Your task to perform on an android device: turn on location history Image 0: 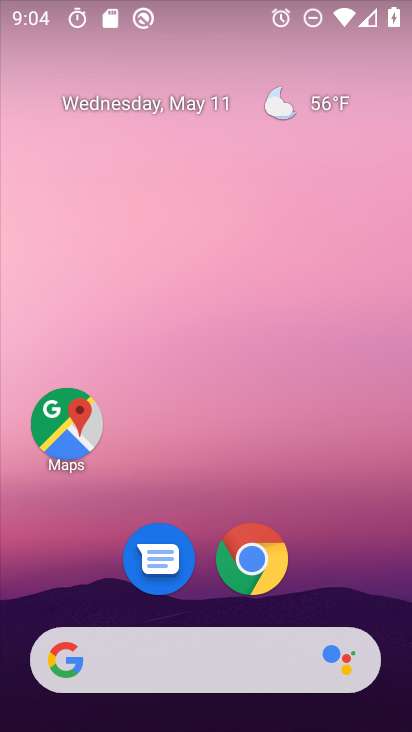
Step 0: drag from (223, 443) to (224, 147)
Your task to perform on an android device: turn on location history Image 1: 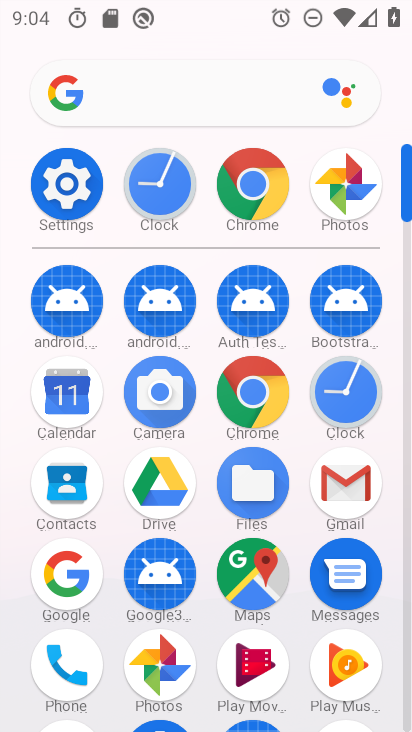
Step 1: click (91, 191)
Your task to perform on an android device: turn on location history Image 2: 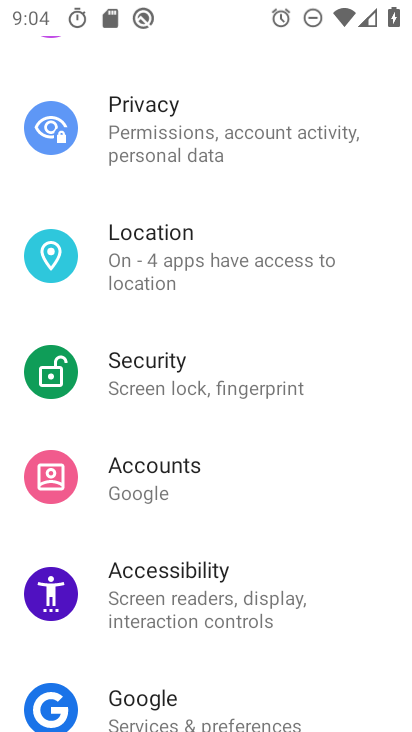
Step 2: click (208, 276)
Your task to perform on an android device: turn on location history Image 3: 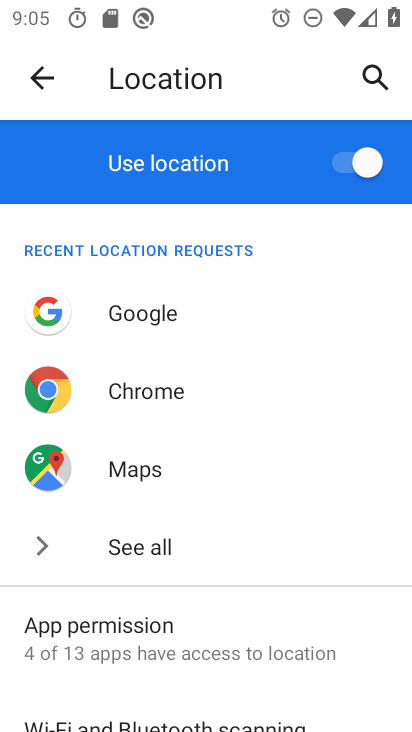
Step 3: drag from (256, 599) to (282, 325)
Your task to perform on an android device: turn on location history Image 4: 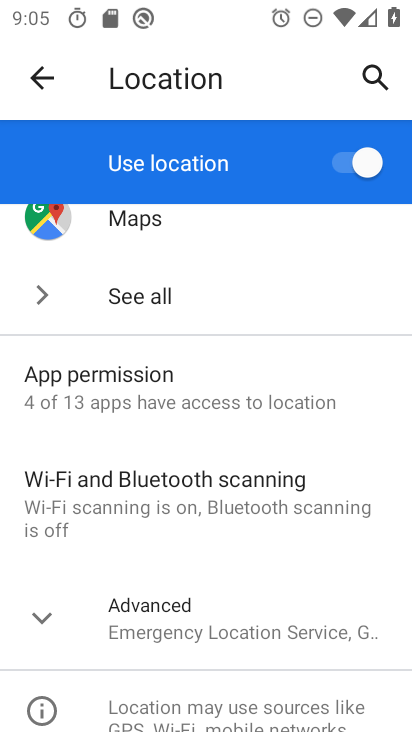
Step 4: click (206, 629)
Your task to perform on an android device: turn on location history Image 5: 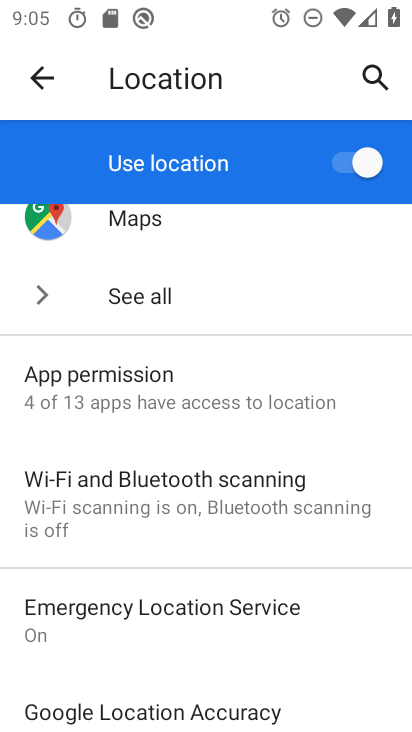
Step 5: drag from (212, 645) to (240, 377)
Your task to perform on an android device: turn on location history Image 6: 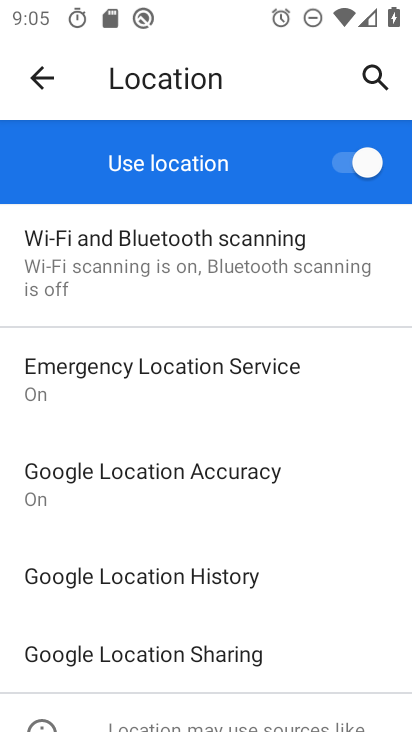
Step 6: click (206, 586)
Your task to perform on an android device: turn on location history Image 7: 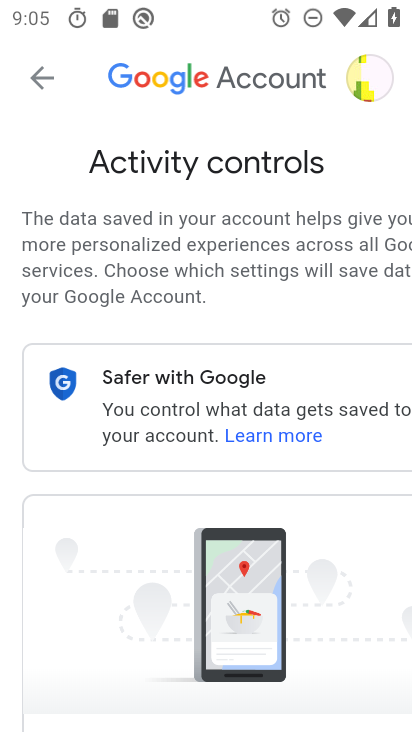
Step 7: task complete